Your task to perform on an android device: turn off location history Image 0: 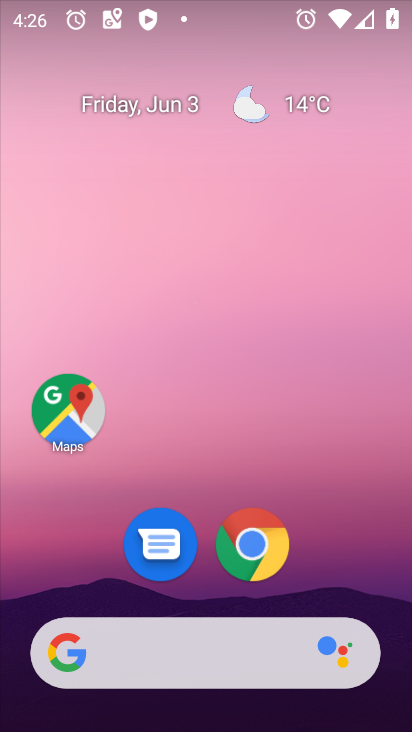
Step 0: click (67, 411)
Your task to perform on an android device: turn off location history Image 1: 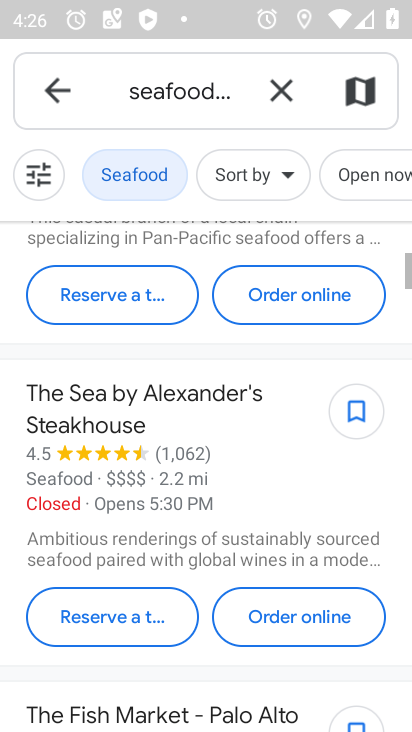
Step 1: click (275, 83)
Your task to perform on an android device: turn off location history Image 2: 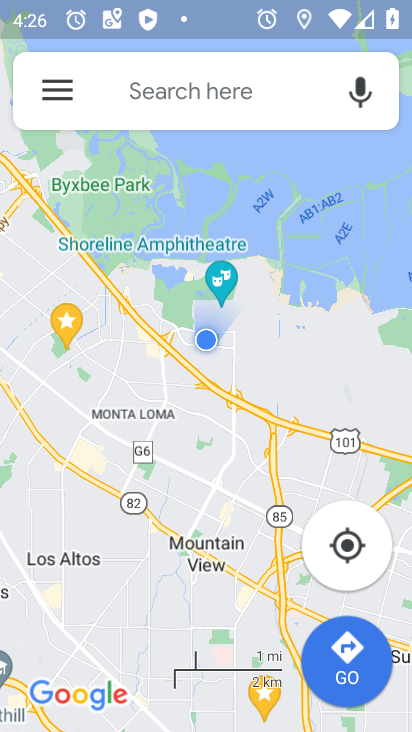
Step 2: click (259, 156)
Your task to perform on an android device: turn off location history Image 3: 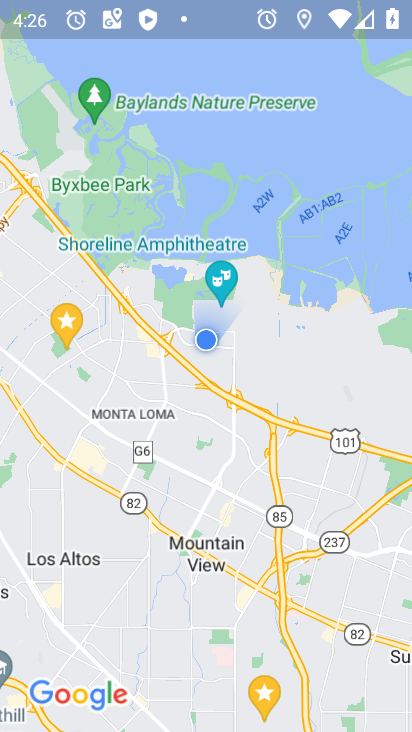
Step 3: click (56, 90)
Your task to perform on an android device: turn off location history Image 4: 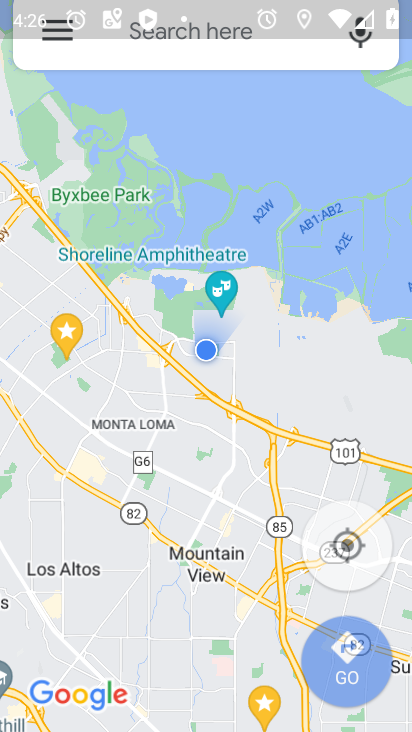
Step 4: drag from (56, 90) to (62, 189)
Your task to perform on an android device: turn off location history Image 5: 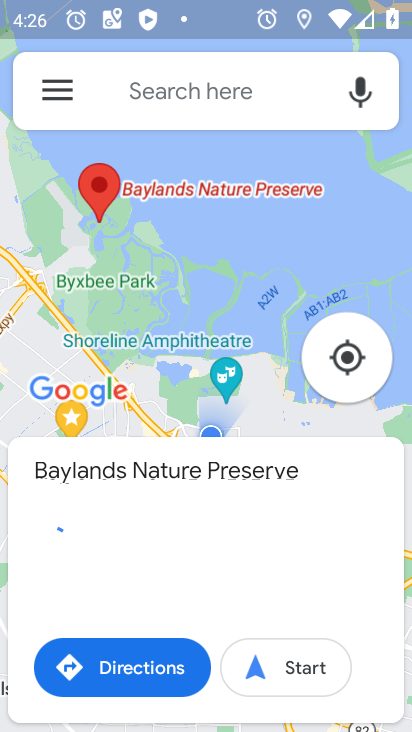
Step 5: click (54, 89)
Your task to perform on an android device: turn off location history Image 6: 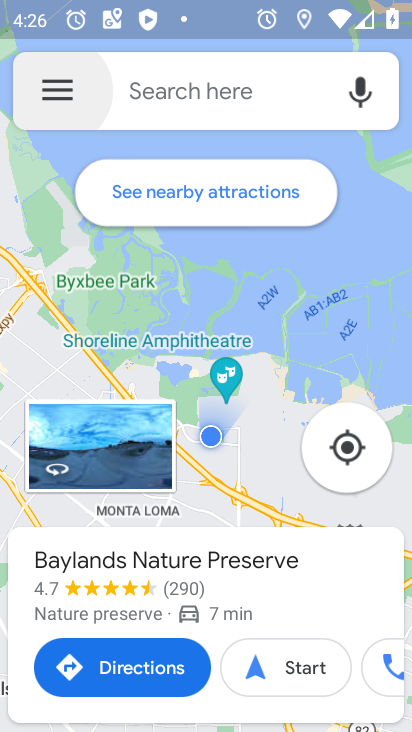
Step 6: click (54, 89)
Your task to perform on an android device: turn off location history Image 7: 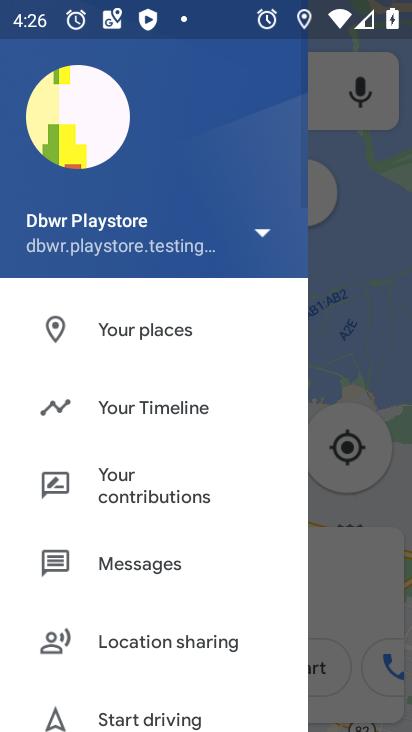
Step 7: drag from (218, 611) to (203, 72)
Your task to perform on an android device: turn off location history Image 8: 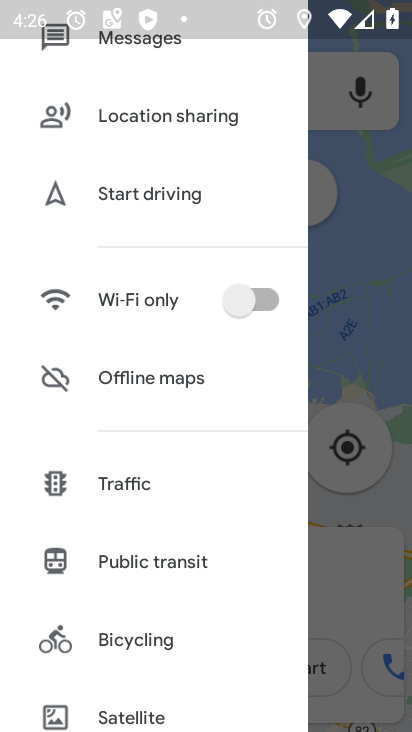
Step 8: drag from (205, 660) to (194, 142)
Your task to perform on an android device: turn off location history Image 9: 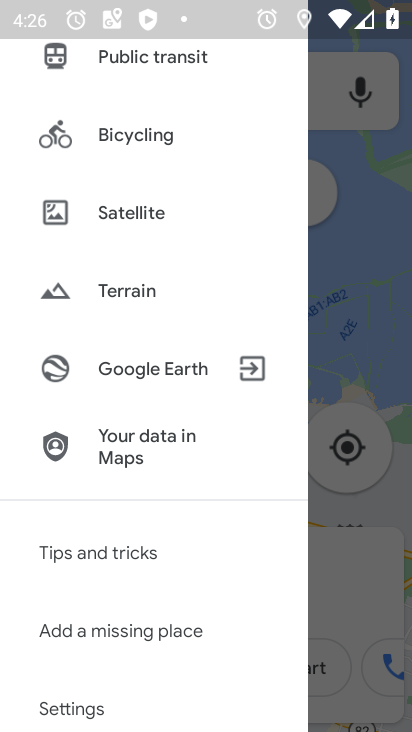
Step 9: drag from (123, 660) to (175, 228)
Your task to perform on an android device: turn off location history Image 10: 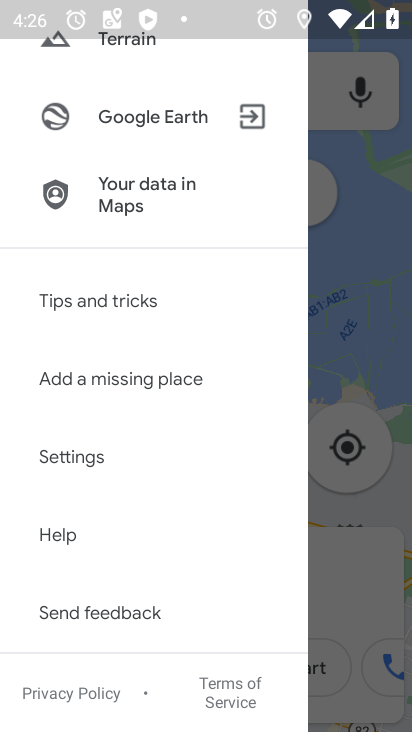
Step 10: click (52, 460)
Your task to perform on an android device: turn off location history Image 11: 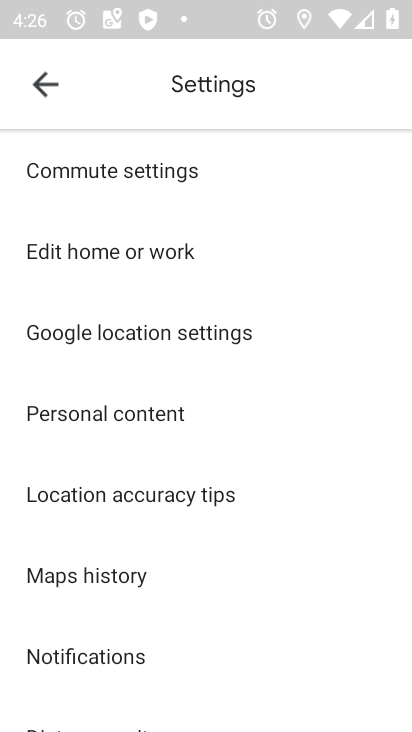
Step 11: click (95, 416)
Your task to perform on an android device: turn off location history Image 12: 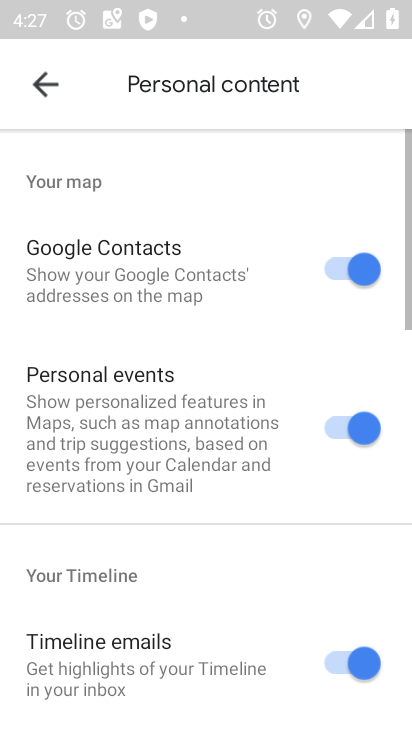
Step 12: task complete